Your task to perform on an android device: Go to Wikipedia Image 0: 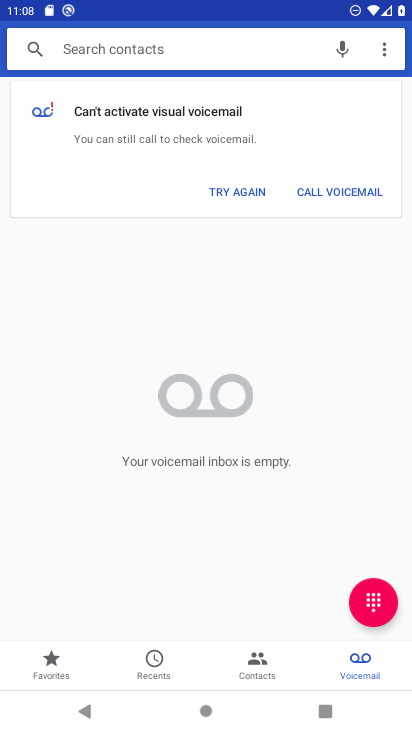
Step 0: press home button
Your task to perform on an android device: Go to Wikipedia Image 1: 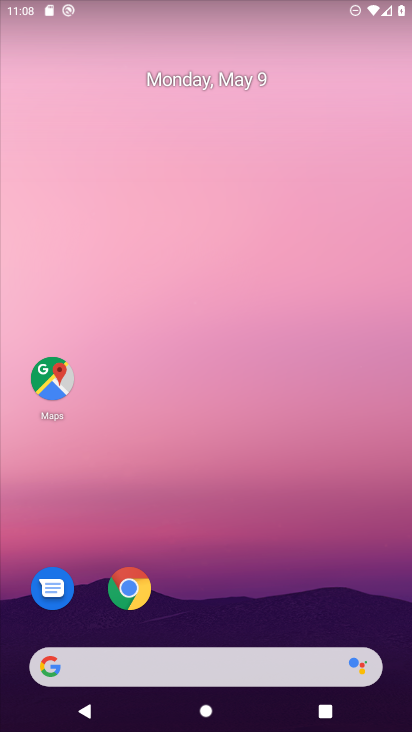
Step 1: click (132, 605)
Your task to perform on an android device: Go to Wikipedia Image 2: 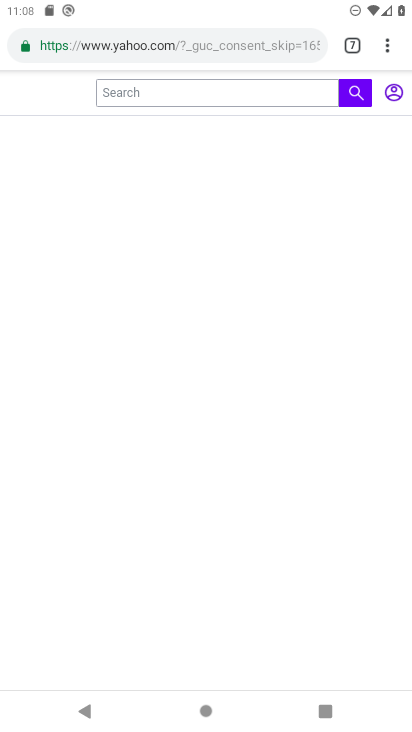
Step 2: click (233, 42)
Your task to perform on an android device: Go to Wikipedia Image 3: 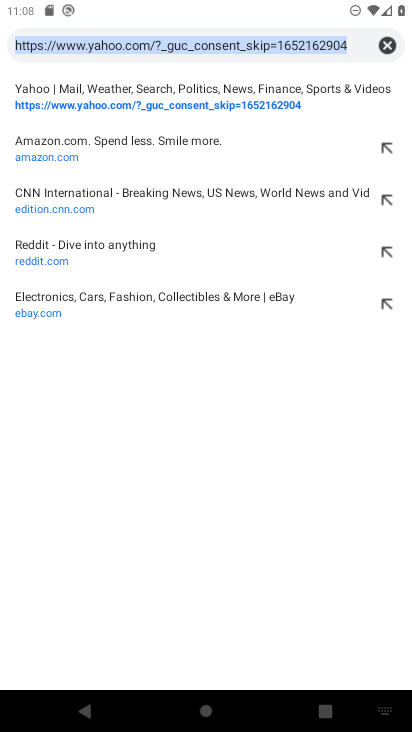
Step 3: type "wikipedia"
Your task to perform on an android device: Go to Wikipedia Image 4: 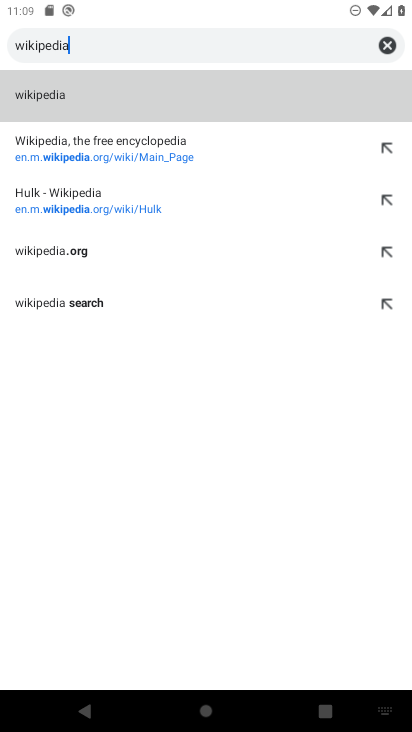
Step 4: click (178, 140)
Your task to perform on an android device: Go to Wikipedia Image 5: 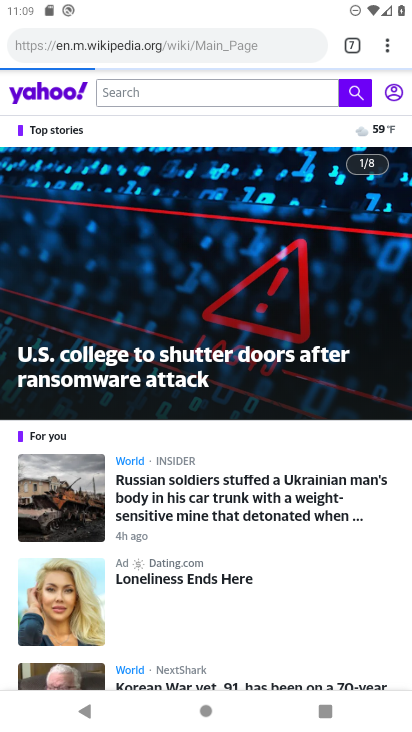
Step 5: task complete